Your task to perform on an android device: choose inbox layout in the gmail app Image 0: 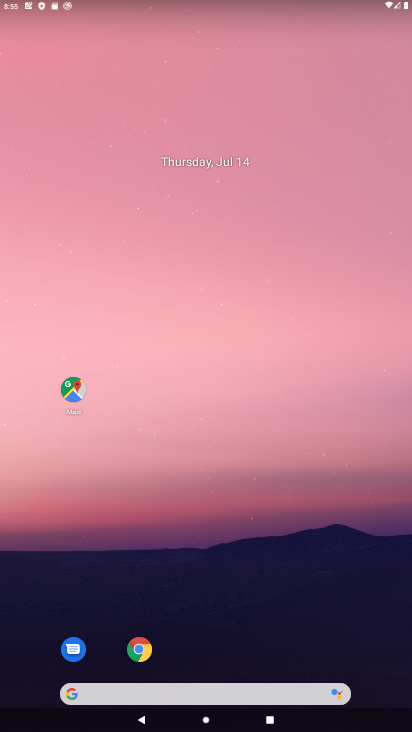
Step 0: drag from (291, 634) to (209, 215)
Your task to perform on an android device: choose inbox layout in the gmail app Image 1: 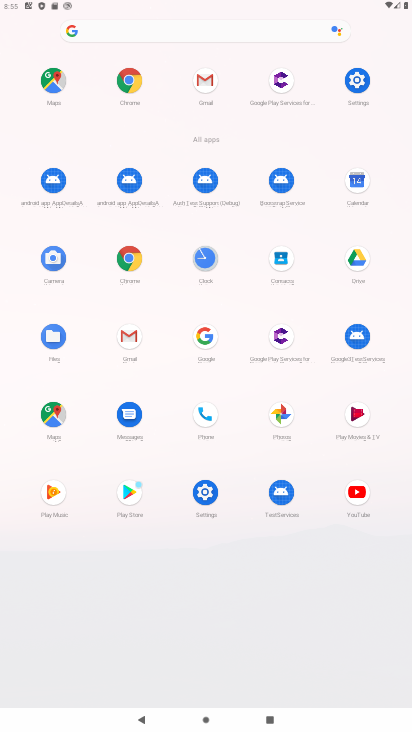
Step 1: click (122, 331)
Your task to perform on an android device: choose inbox layout in the gmail app Image 2: 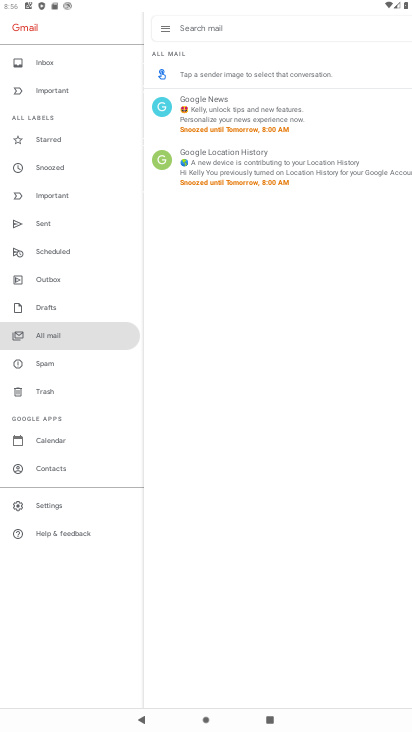
Step 2: click (67, 506)
Your task to perform on an android device: choose inbox layout in the gmail app Image 3: 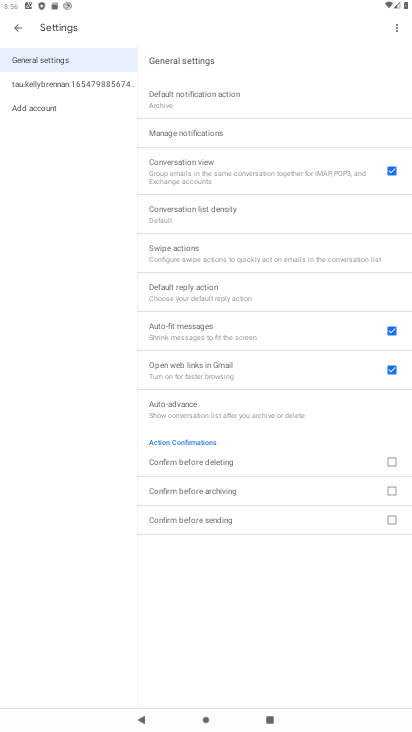
Step 3: click (90, 85)
Your task to perform on an android device: choose inbox layout in the gmail app Image 4: 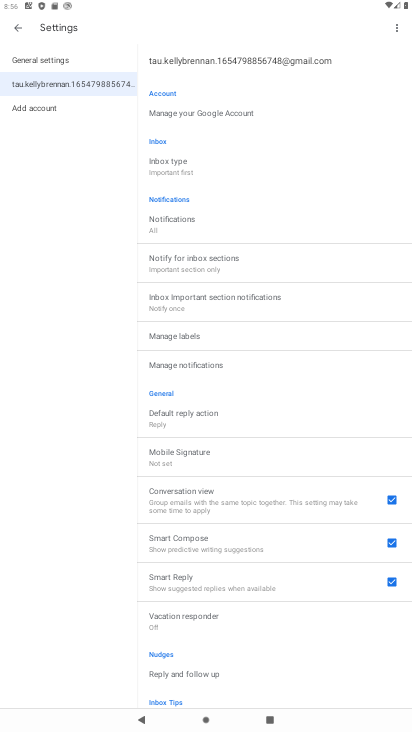
Step 4: click (196, 162)
Your task to perform on an android device: choose inbox layout in the gmail app Image 5: 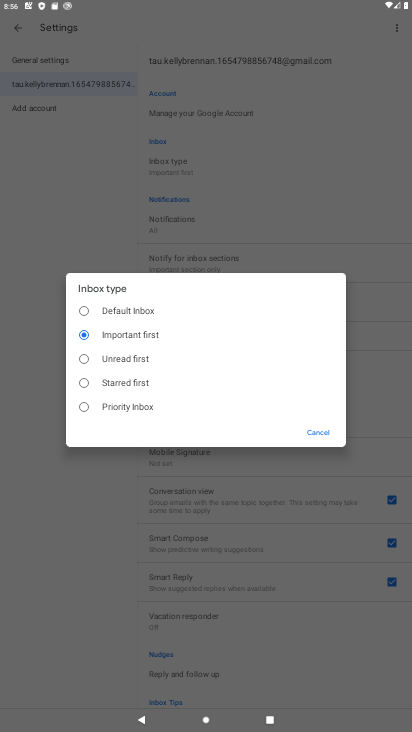
Step 5: click (129, 405)
Your task to perform on an android device: choose inbox layout in the gmail app Image 6: 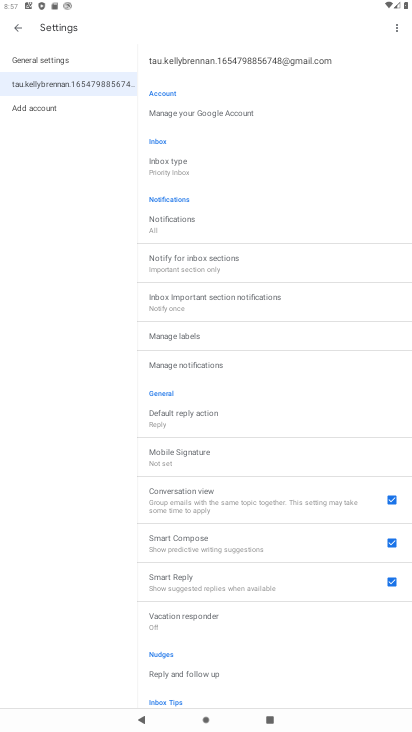
Step 6: task complete